Your task to perform on an android device: check out phone information Image 0: 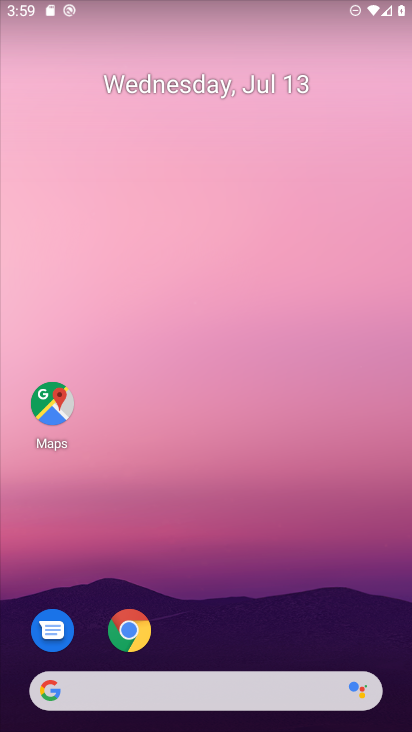
Step 0: drag from (208, 539) to (201, 25)
Your task to perform on an android device: check out phone information Image 1: 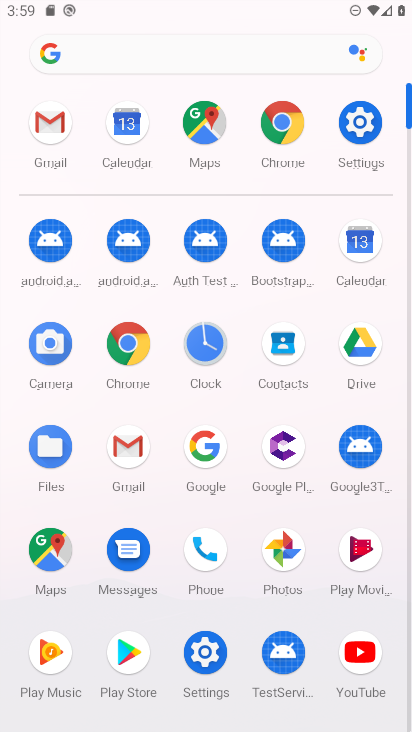
Step 1: click (363, 141)
Your task to perform on an android device: check out phone information Image 2: 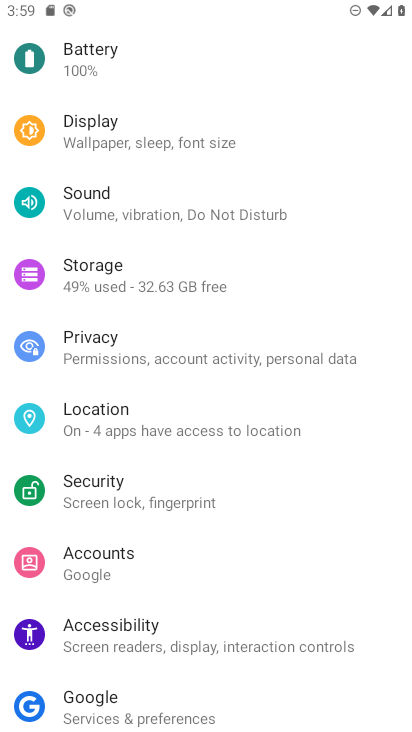
Step 2: drag from (193, 637) to (153, 117)
Your task to perform on an android device: check out phone information Image 3: 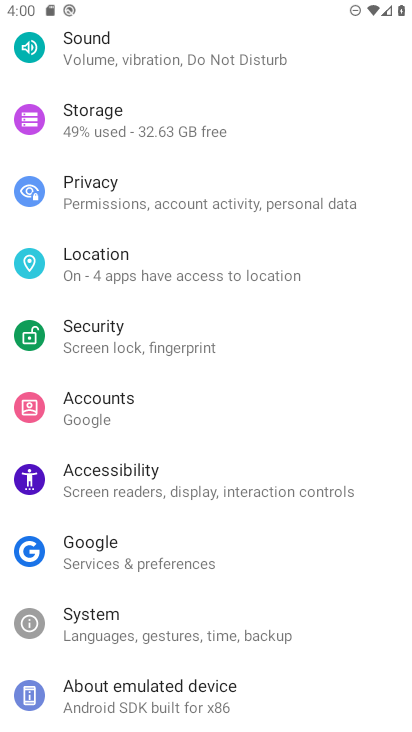
Step 3: click (198, 693)
Your task to perform on an android device: check out phone information Image 4: 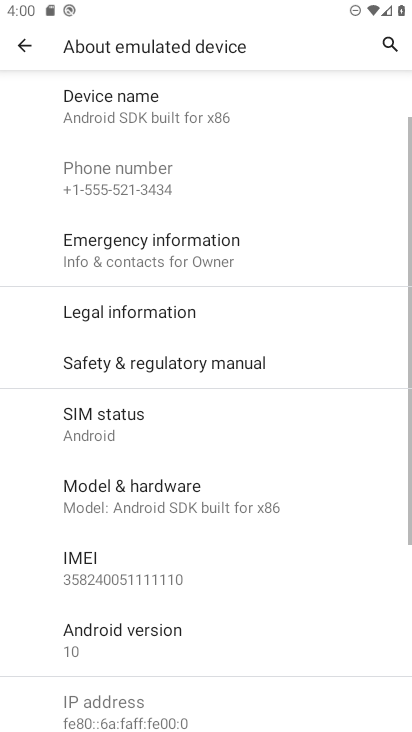
Step 4: task complete